Your task to perform on an android device: delete the emails in spam in the gmail app Image 0: 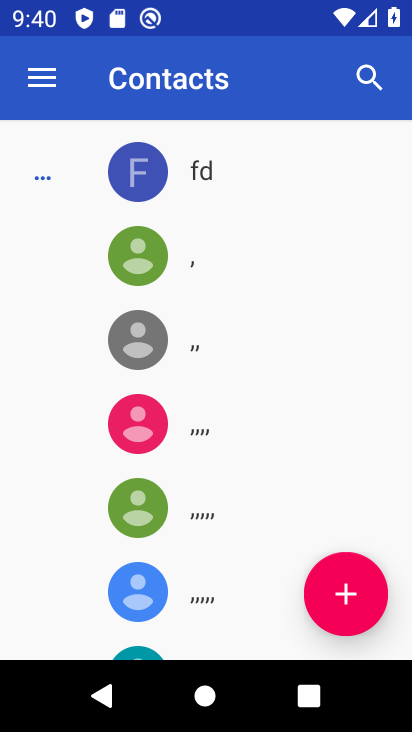
Step 0: press home button
Your task to perform on an android device: delete the emails in spam in the gmail app Image 1: 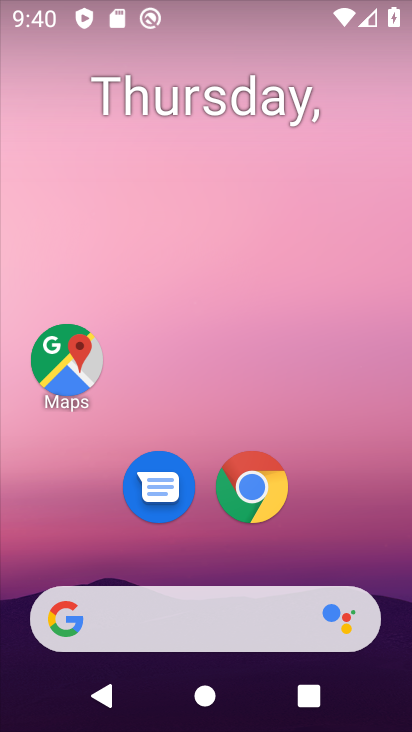
Step 1: drag from (324, 514) to (174, 256)
Your task to perform on an android device: delete the emails in spam in the gmail app Image 2: 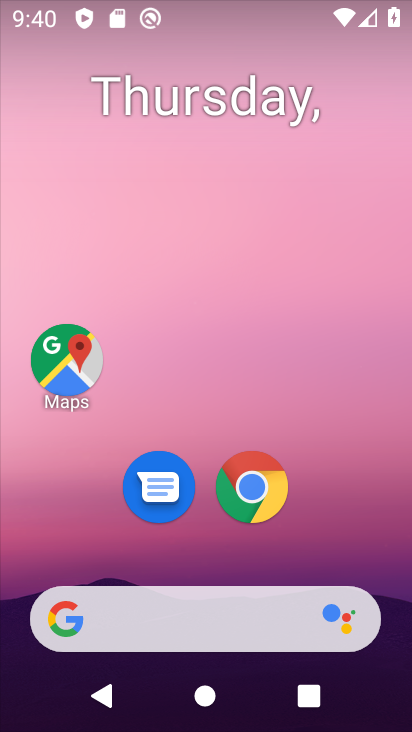
Step 2: drag from (340, 527) to (222, 110)
Your task to perform on an android device: delete the emails in spam in the gmail app Image 3: 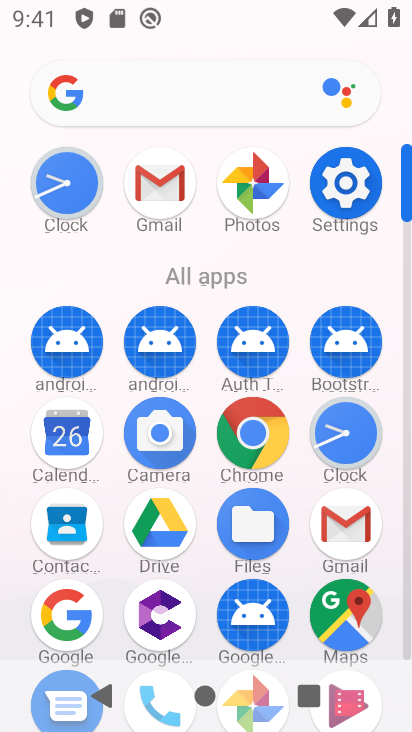
Step 3: click (166, 193)
Your task to perform on an android device: delete the emails in spam in the gmail app Image 4: 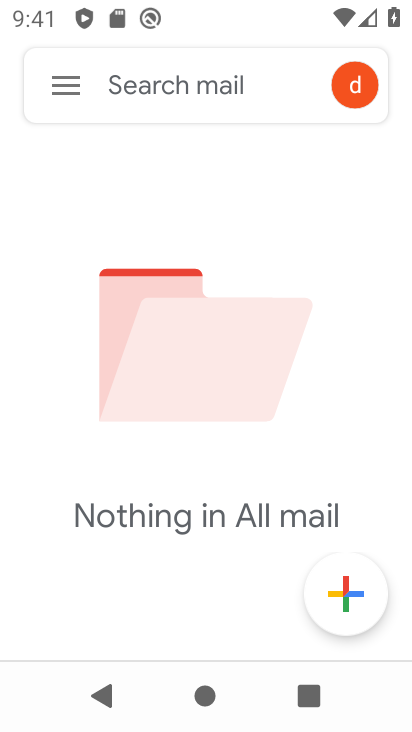
Step 4: click (66, 88)
Your task to perform on an android device: delete the emails in spam in the gmail app Image 5: 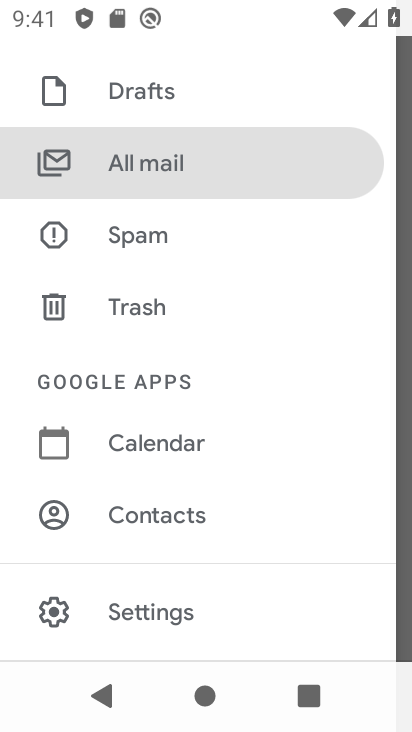
Step 5: click (143, 235)
Your task to perform on an android device: delete the emails in spam in the gmail app Image 6: 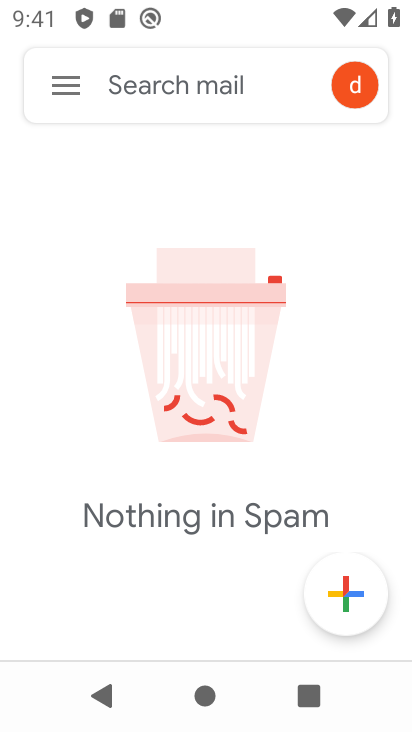
Step 6: task complete